Your task to perform on an android device: Go to Android settings Image 0: 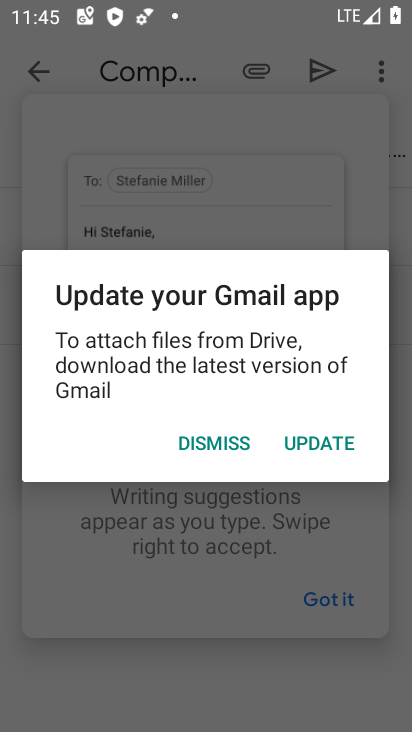
Step 0: press home button
Your task to perform on an android device: Go to Android settings Image 1: 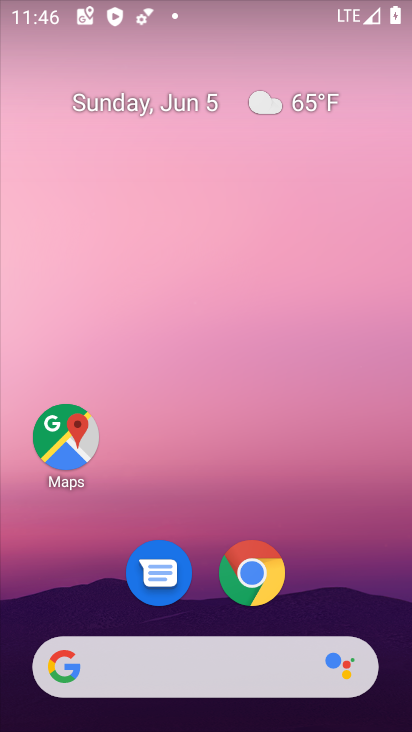
Step 1: drag from (250, 455) to (239, 31)
Your task to perform on an android device: Go to Android settings Image 2: 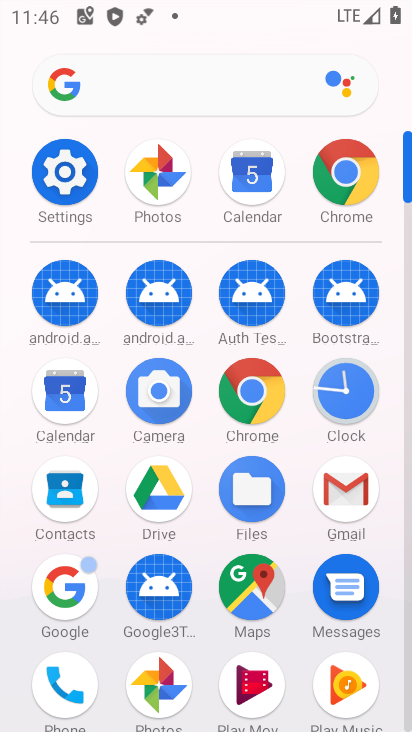
Step 2: drag from (114, 254) to (138, 9)
Your task to perform on an android device: Go to Android settings Image 3: 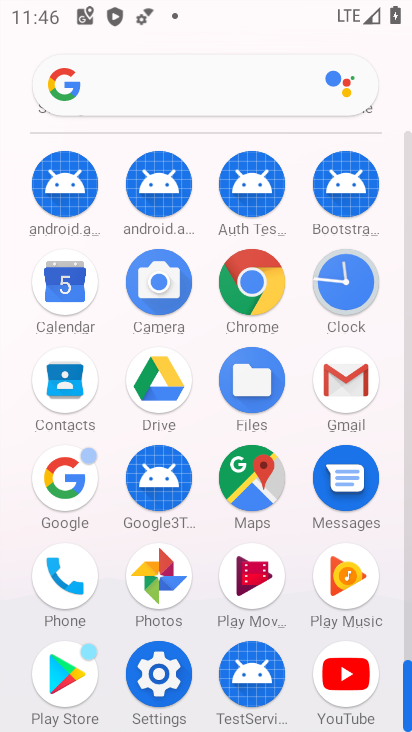
Step 3: click (157, 690)
Your task to perform on an android device: Go to Android settings Image 4: 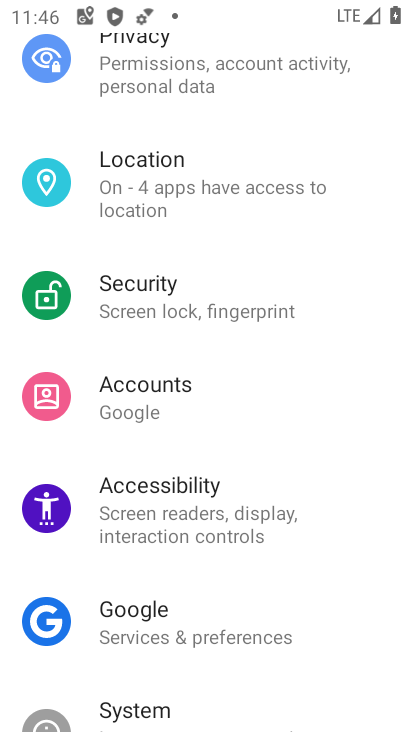
Step 4: task complete